Your task to perform on an android device: change the clock display to digital Image 0: 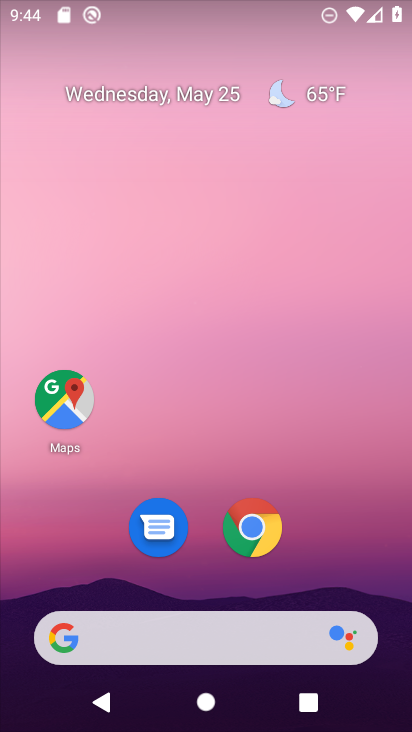
Step 0: drag from (328, 547) to (268, 13)
Your task to perform on an android device: change the clock display to digital Image 1: 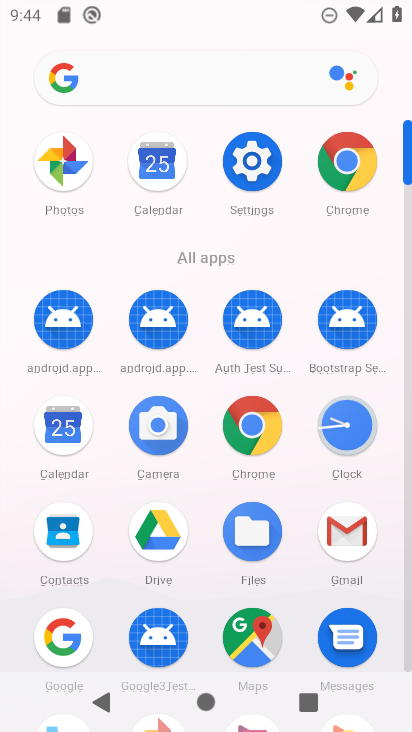
Step 1: click (348, 426)
Your task to perform on an android device: change the clock display to digital Image 2: 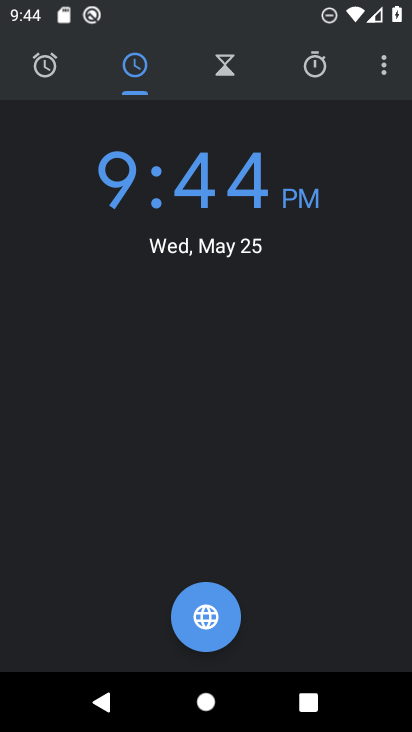
Step 2: click (385, 66)
Your task to perform on an android device: change the clock display to digital Image 3: 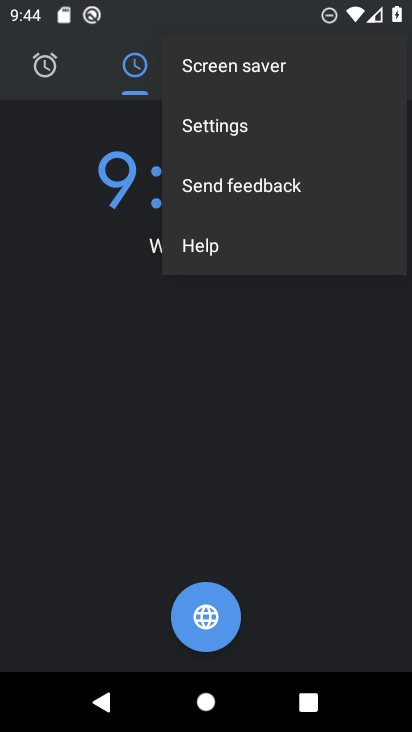
Step 3: click (236, 125)
Your task to perform on an android device: change the clock display to digital Image 4: 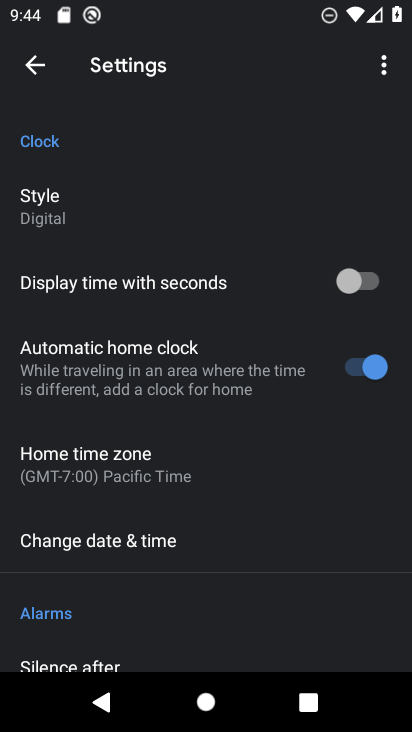
Step 4: click (59, 208)
Your task to perform on an android device: change the clock display to digital Image 5: 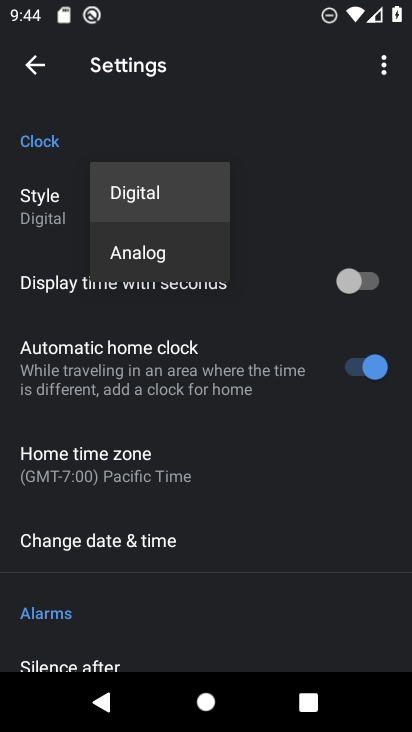
Step 5: click (147, 185)
Your task to perform on an android device: change the clock display to digital Image 6: 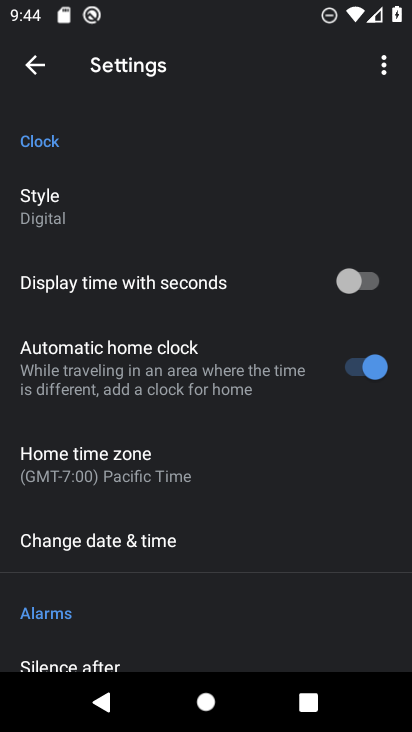
Step 6: task complete